Your task to perform on an android device: Go to Maps Image 0: 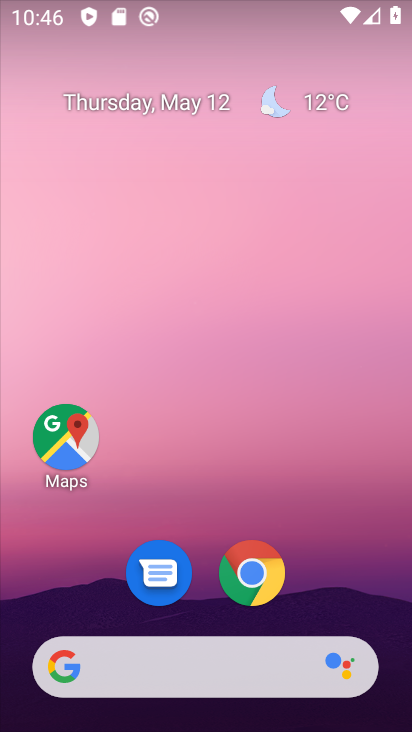
Step 0: click (49, 441)
Your task to perform on an android device: Go to Maps Image 1: 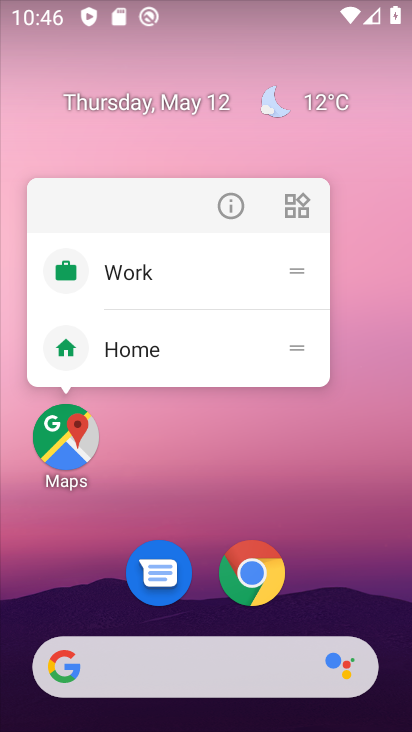
Step 1: click (41, 435)
Your task to perform on an android device: Go to Maps Image 2: 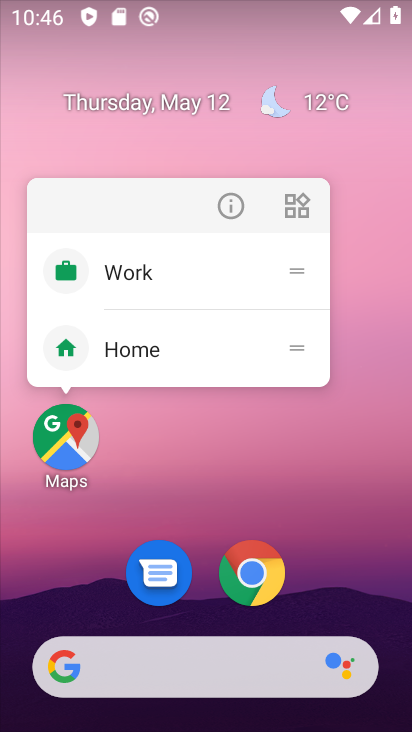
Step 2: click (43, 435)
Your task to perform on an android device: Go to Maps Image 3: 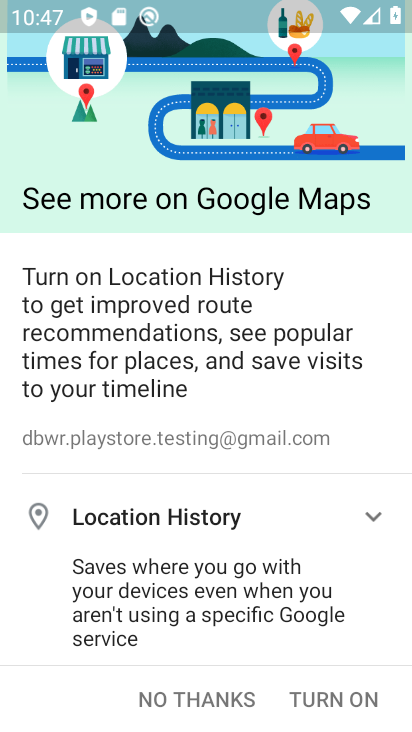
Step 3: click (191, 699)
Your task to perform on an android device: Go to Maps Image 4: 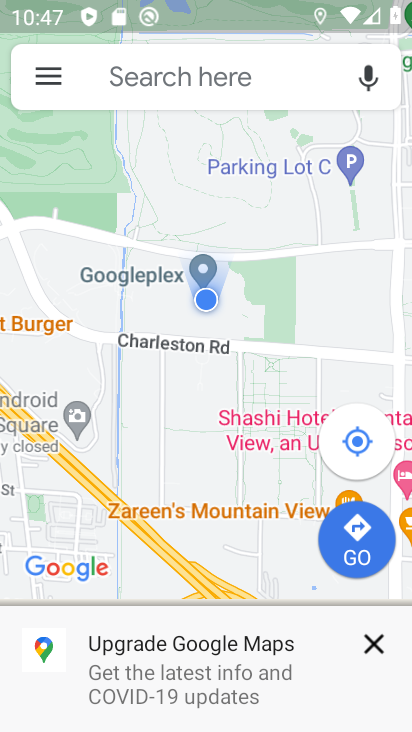
Step 4: task complete